Your task to perform on an android device: toggle pop-ups in chrome Image 0: 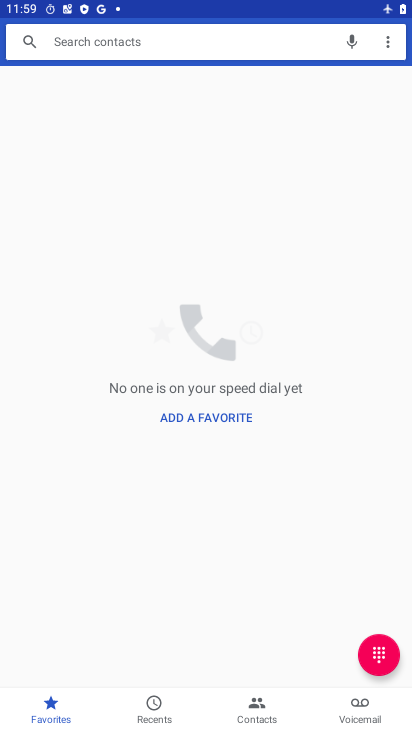
Step 0: click (196, 572)
Your task to perform on an android device: toggle pop-ups in chrome Image 1: 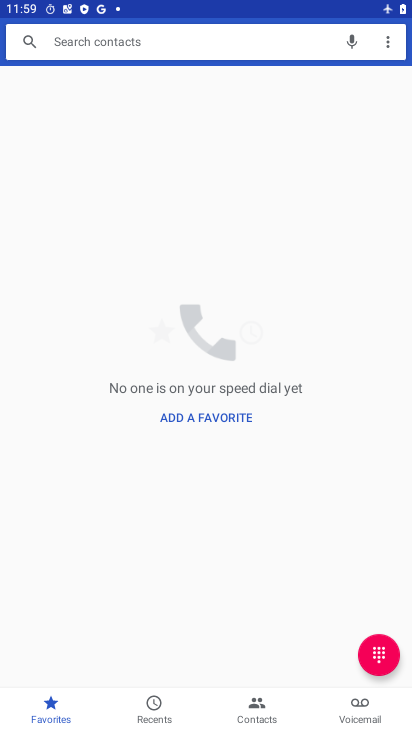
Step 1: press home button
Your task to perform on an android device: toggle pop-ups in chrome Image 2: 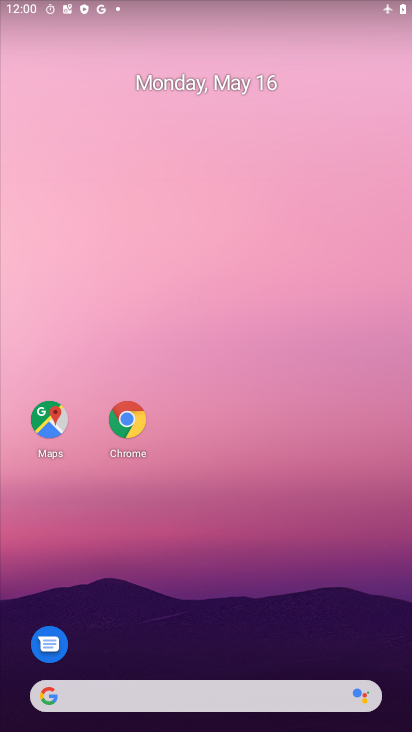
Step 2: drag from (183, 658) to (171, 215)
Your task to perform on an android device: toggle pop-ups in chrome Image 3: 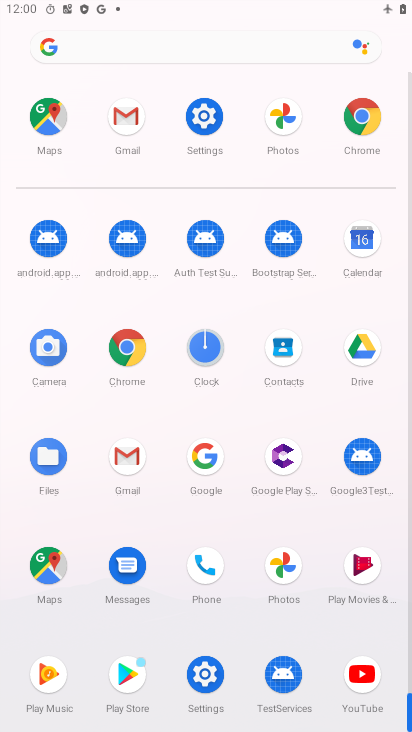
Step 3: click (362, 120)
Your task to perform on an android device: toggle pop-ups in chrome Image 4: 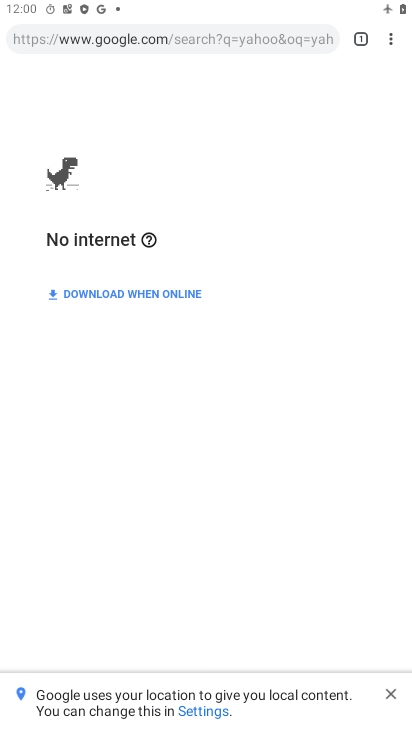
Step 4: click (387, 39)
Your task to perform on an android device: toggle pop-ups in chrome Image 5: 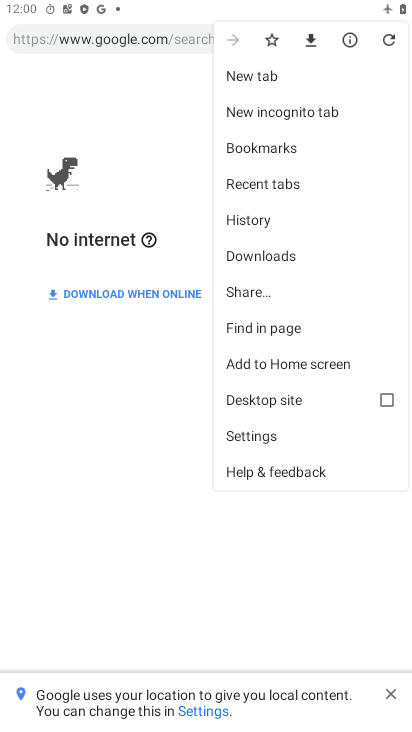
Step 5: click (280, 428)
Your task to perform on an android device: toggle pop-ups in chrome Image 6: 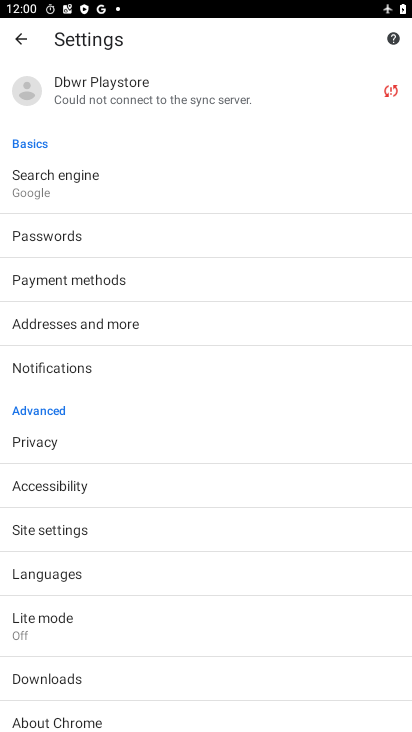
Step 6: click (74, 532)
Your task to perform on an android device: toggle pop-ups in chrome Image 7: 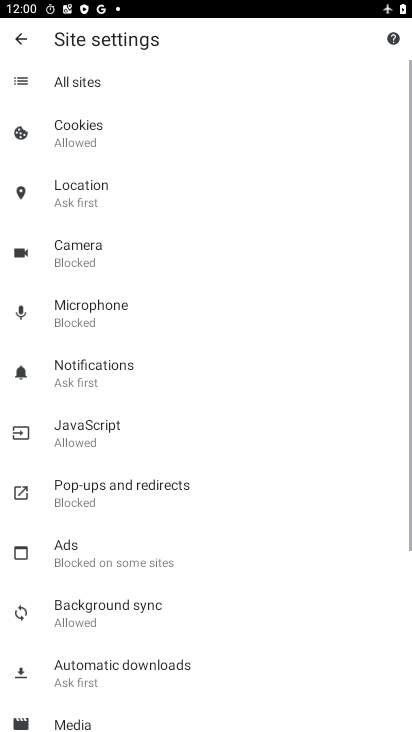
Step 7: drag from (138, 628) to (235, 250)
Your task to perform on an android device: toggle pop-ups in chrome Image 8: 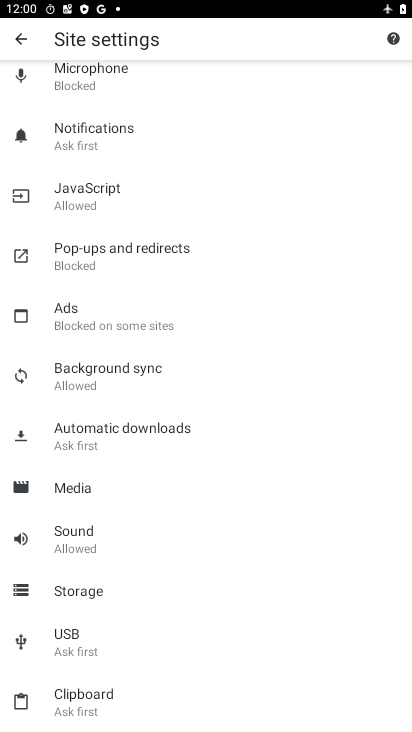
Step 8: click (121, 258)
Your task to perform on an android device: toggle pop-ups in chrome Image 9: 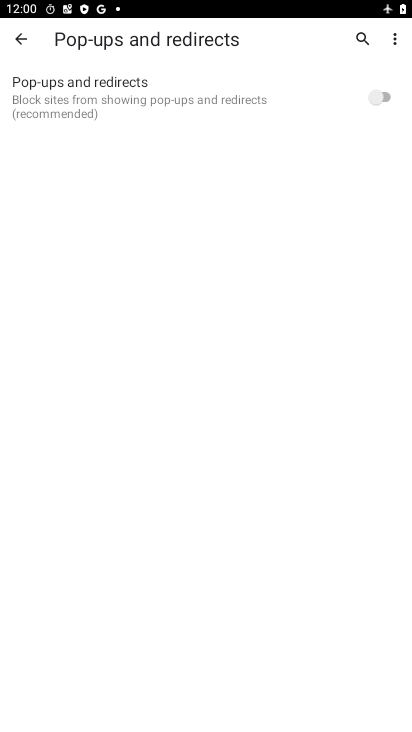
Step 9: click (319, 102)
Your task to perform on an android device: toggle pop-ups in chrome Image 10: 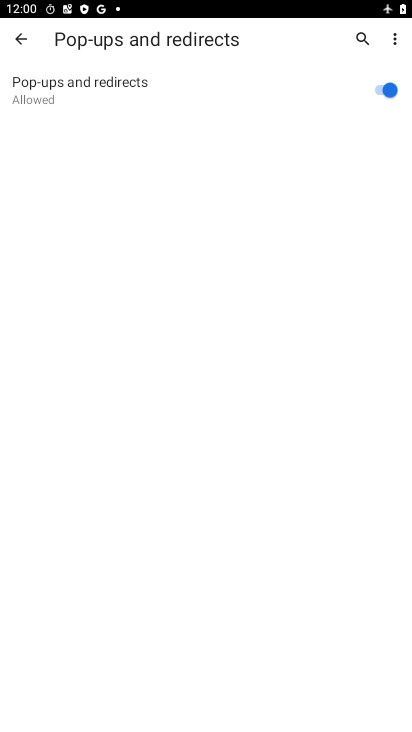
Step 10: task complete